Your task to perform on an android device: Turn on the flashlight Image 0: 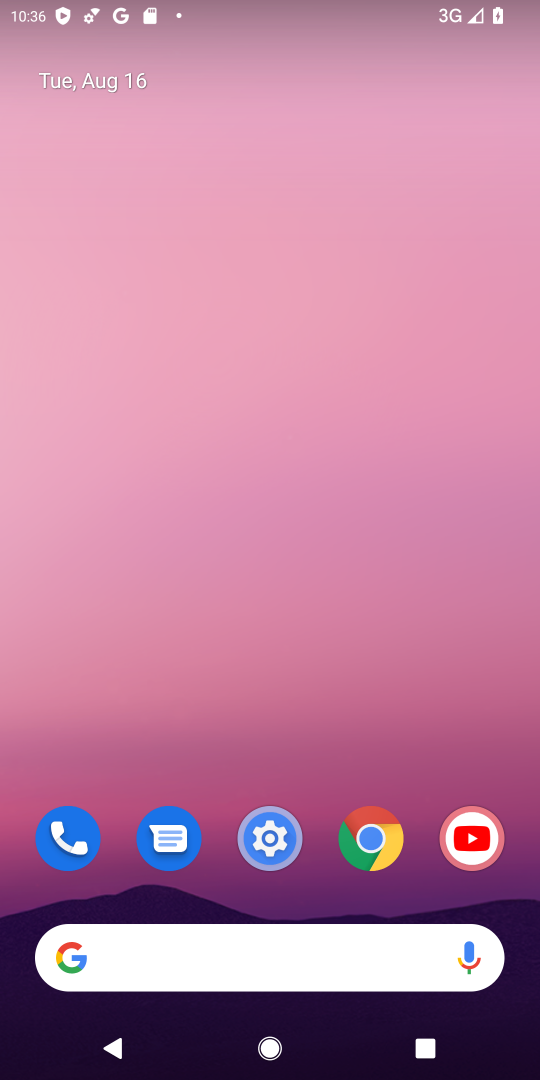
Step 0: press home button
Your task to perform on an android device: Turn on the flashlight Image 1: 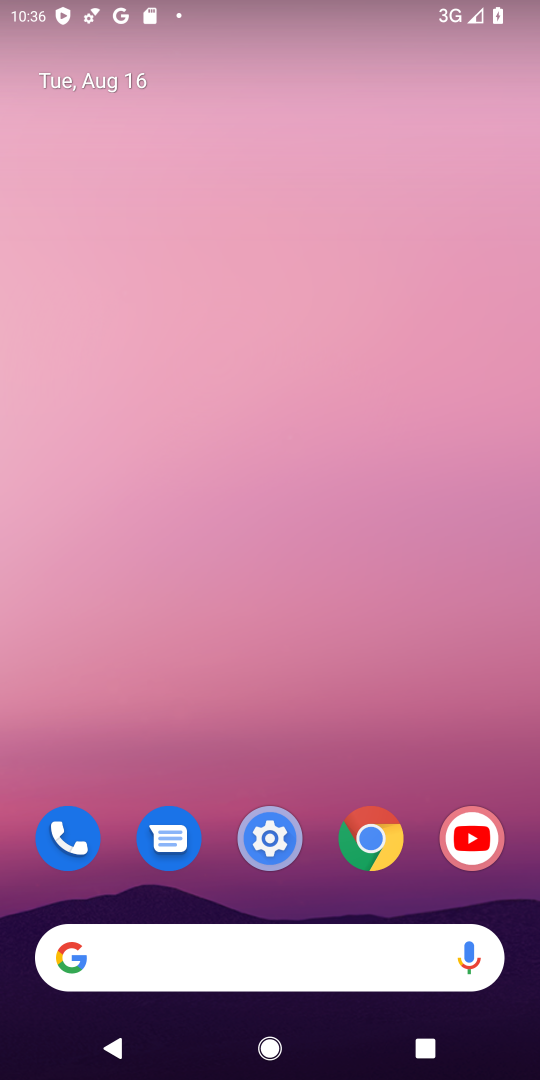
Step 1: drag from (290, 54) to (385, 709)
Your task to perform on an android device: Turn on the flashlight Image 2: 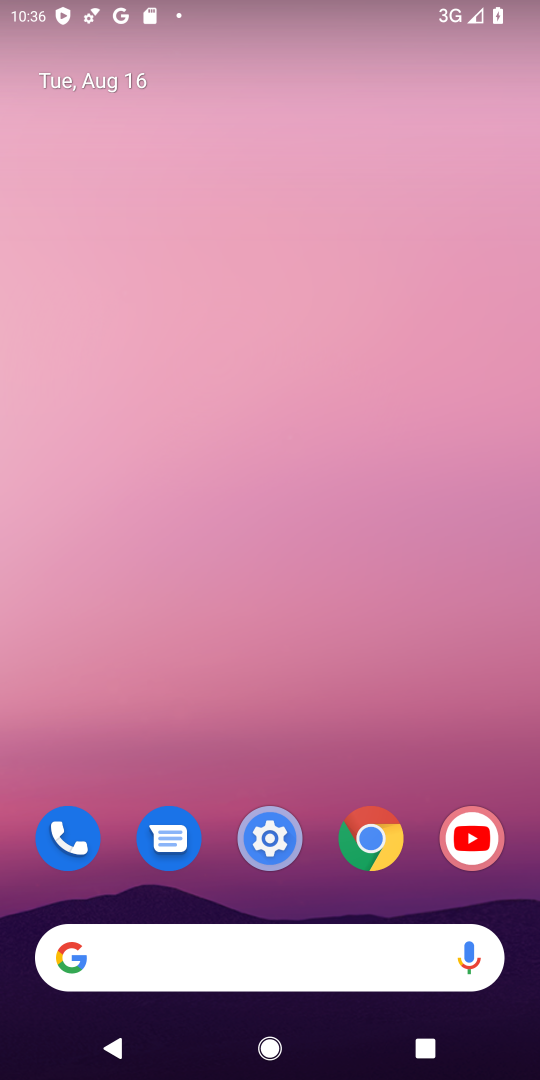
Step 2: drag from (285, 0) to (290, 681)
Your task to perform on an android device: Turn on the flashlight Image 3: 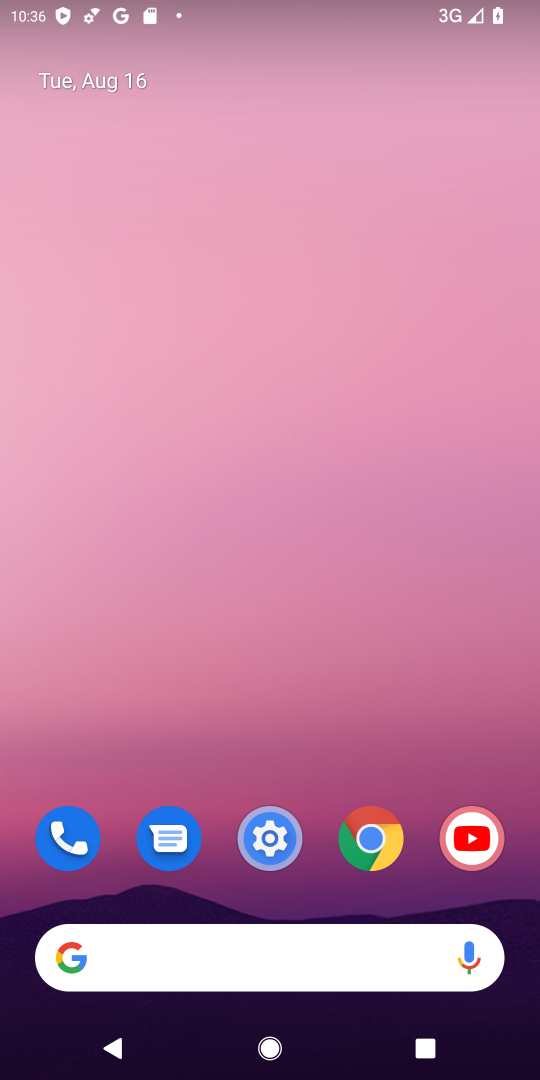
Step 3: drag from (186, 564) to (224, 744)
Your task to perform on an android device: Turn on the flashlight Image 4: 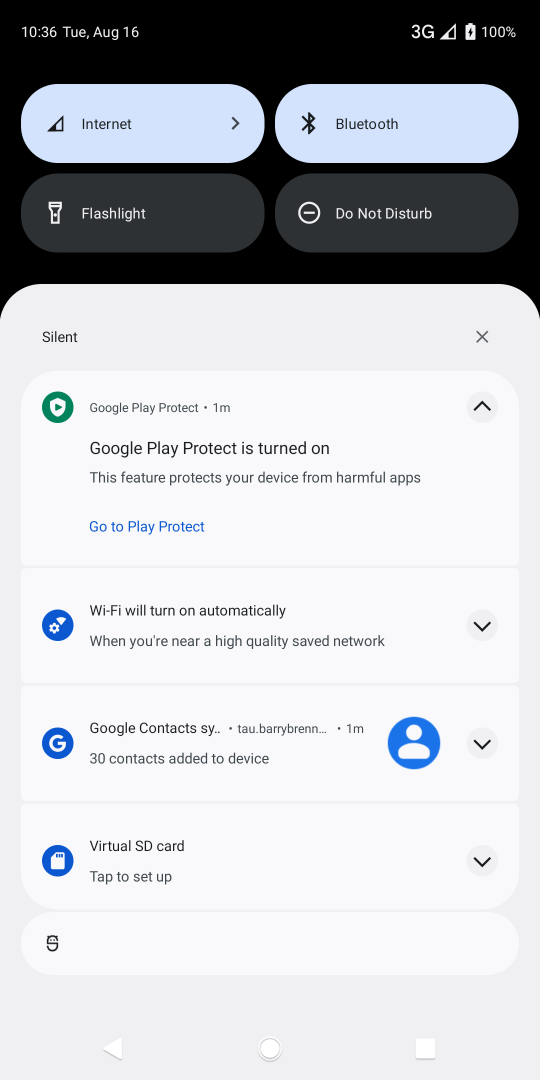
Step 4: click (101, 213)
Your task to perform on an android device: Turn on the flashlight Image 5: 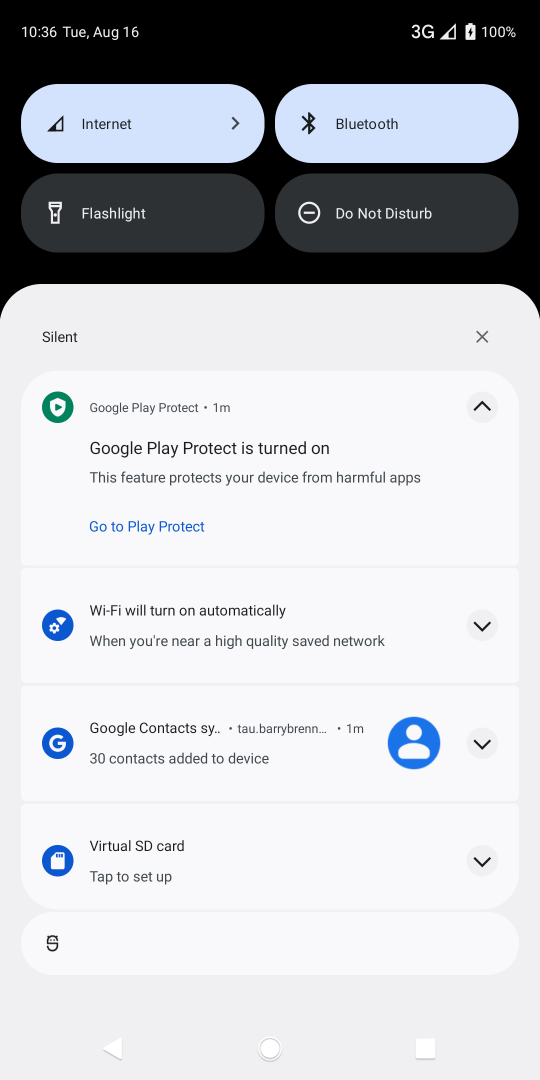
Step 5: task complete